Your task to perform on an android device: turn off location history Image 0: 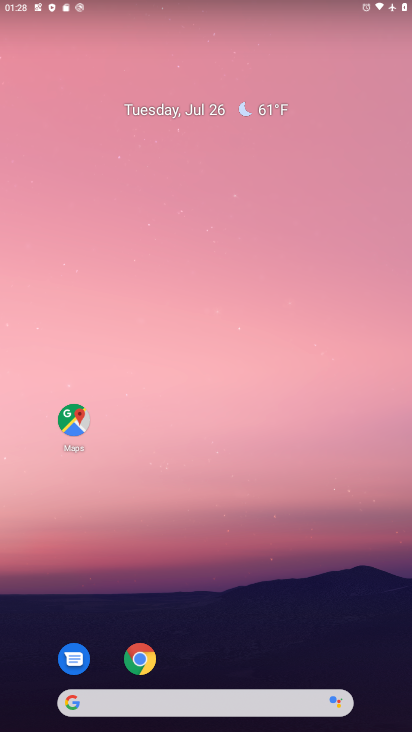
Step 0: drag from (309, 589) to (156, 51)
Your task to perform on an android device: turn off location history Image 1: 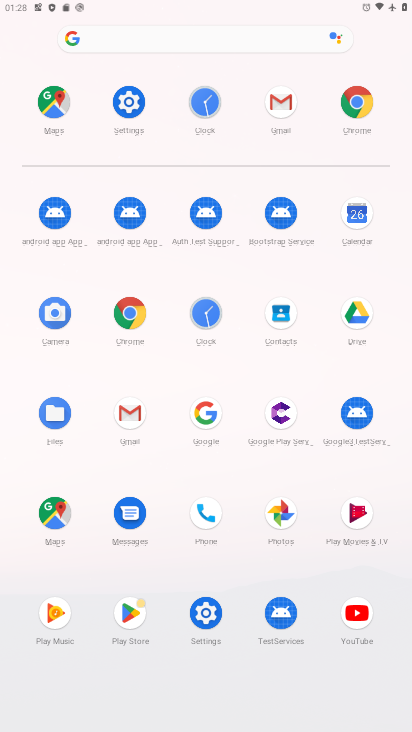
Step 1: click (120, 93)
Your task to perform on an android device: turn off location history Image 2: 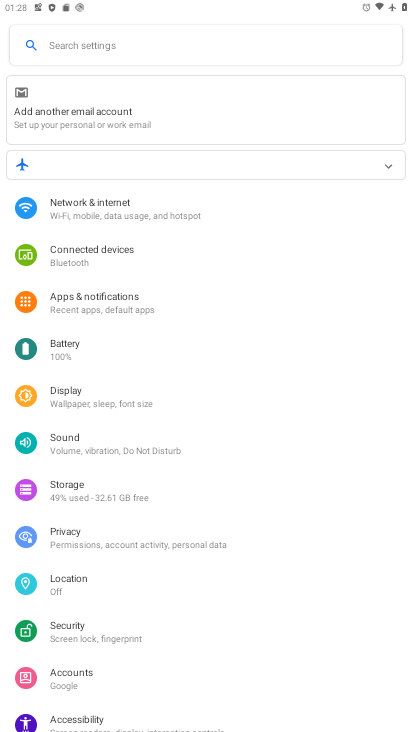
Step 2: click (83, 582)
Your task to perform on an android device: turn off location history Image 3: 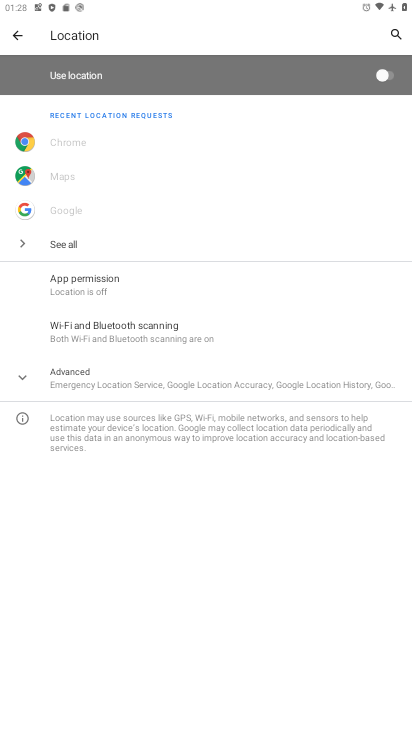
Step 3: click (165, 372)
Your task to perform on an android device: turn off location history Image 4: 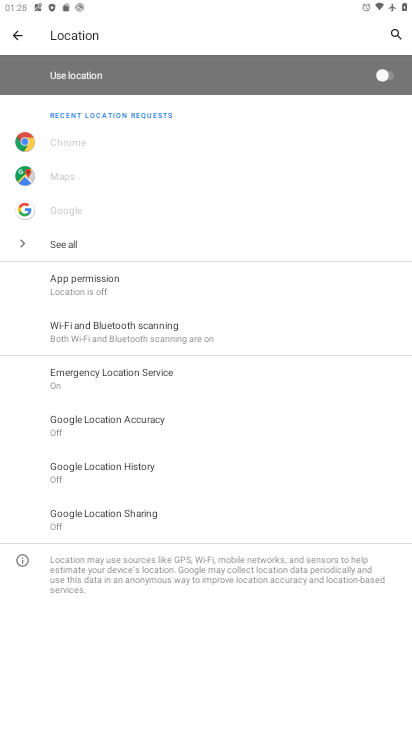
Step 4: click (145, 460)
Your task to perform on an android device: turn off location history Image 5: 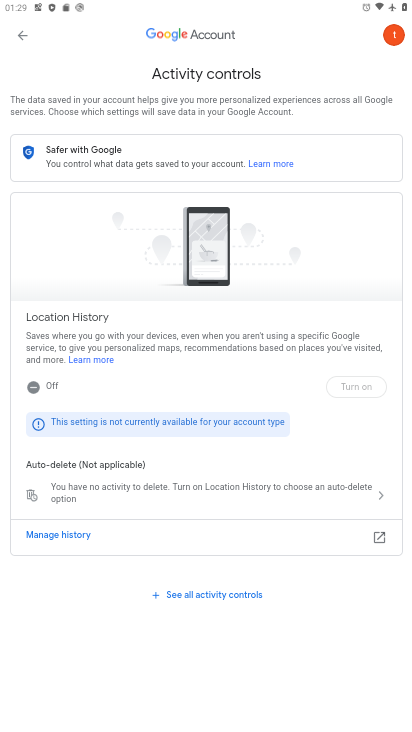
Step 5: task complete